Your task to perform on an android device: turn on improve location accuracy Image 0: 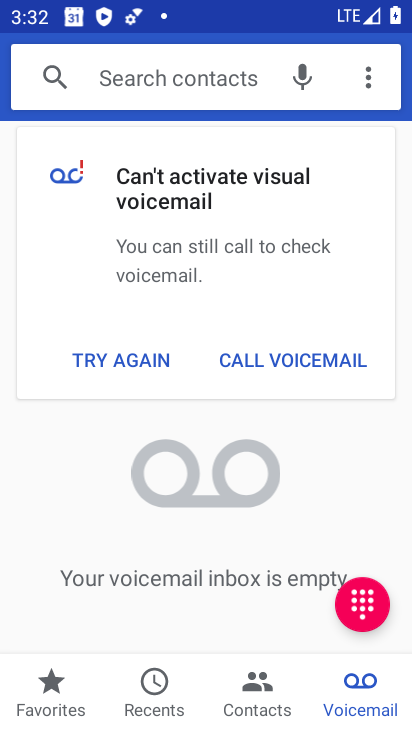
Step 0: press home button
Your task to perform on an android device: turn on improve location accuracy Image 1: 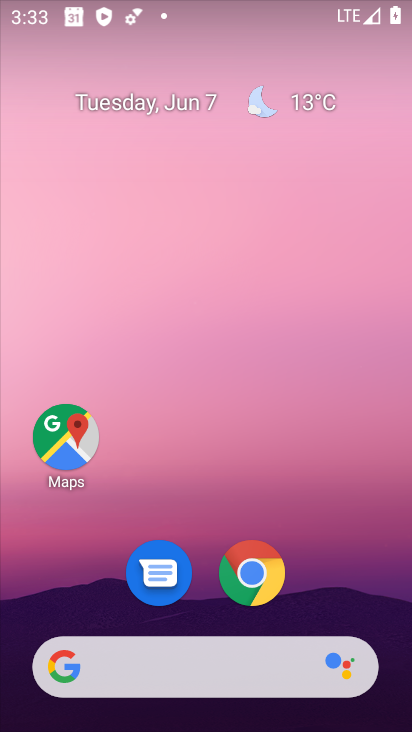
Step 1: drag from (385, 616) to (273, 132)
Your task to perform on an android device: turn on improve location accuracy Image 2: 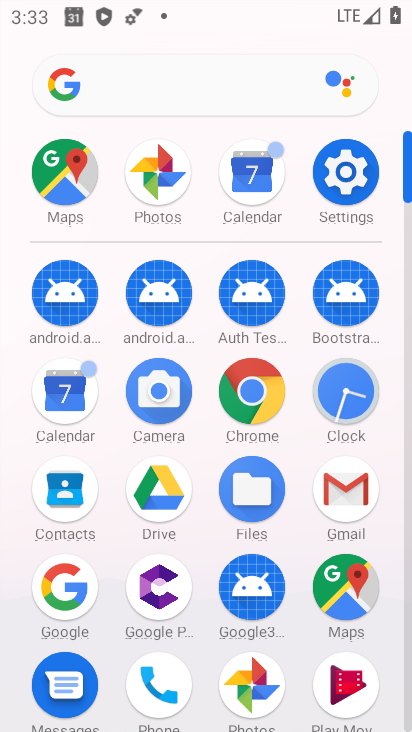
Step 2: click (357, 195)
Your task to perform on an android device: turn on improve location accuracy Image 3: 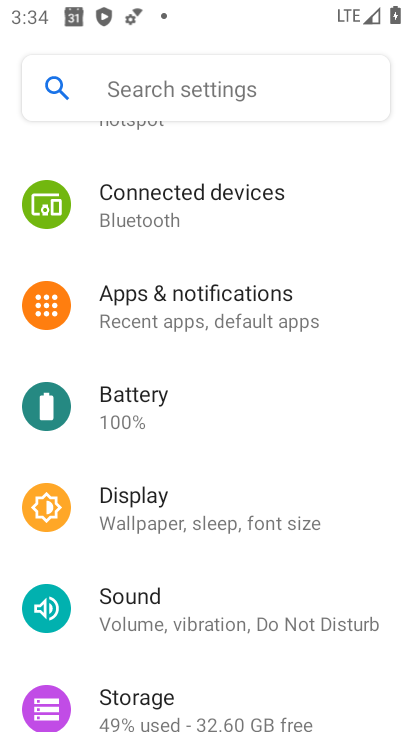
Step 3: drag from (284, 655) to (250, 247)
Your task to perform on an android device: turn on improve location accuracy Image 4: 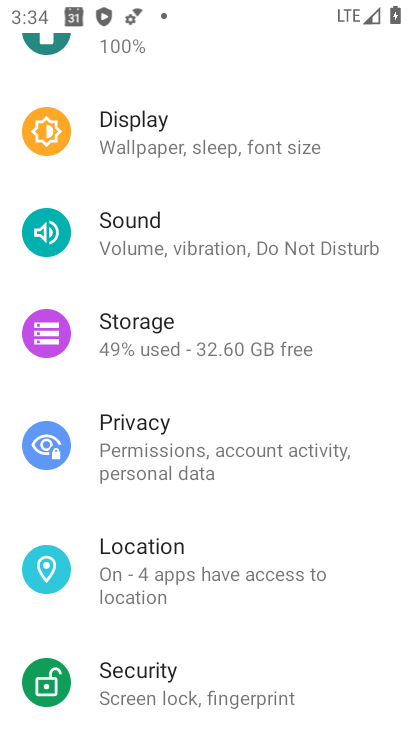
Step 4: click (262, 566)
Your task to perform on an android device: turn on improve location accuracy Image 5: 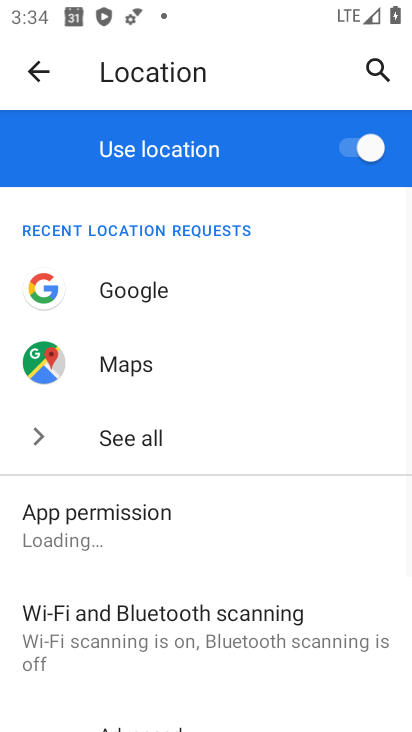
Step 5: drag from (308, 592) to (248, 299)
Your task to perform on an android device: turn on improve location accuracy Image 6: 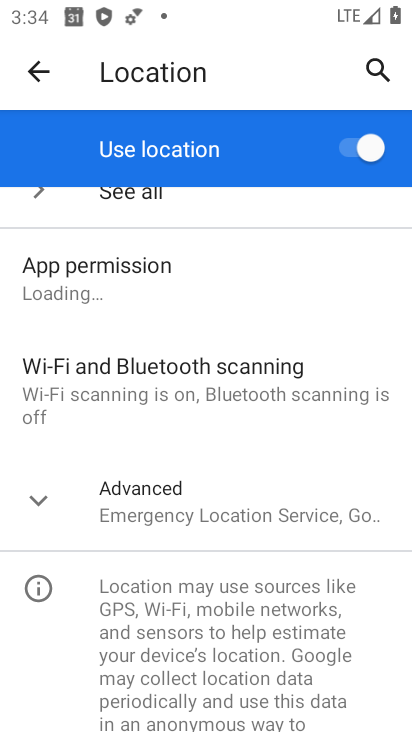
Step 6: click (264, 488)
Your task to perform on an android device: turn on improve location accuracy Image 7: 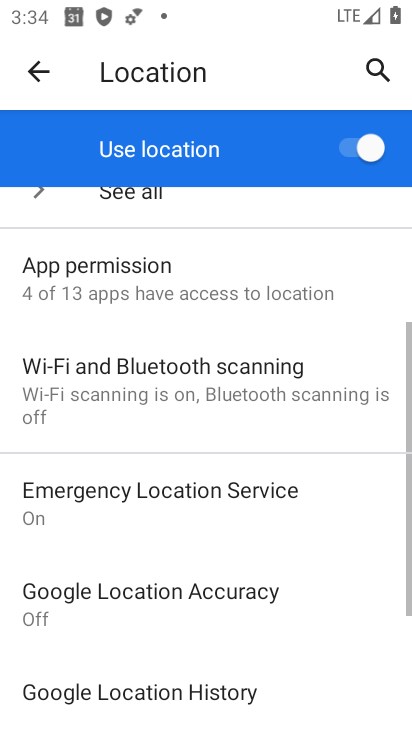
Step 7: drag from (264, 488) to (210, 252)
Your task to perform on an android device: turn on improve location accuracy Image 8: 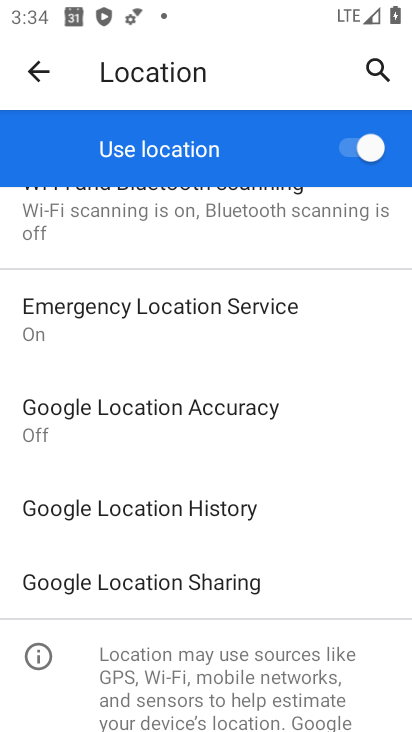
Step 8: click (234, 414)
Your task to perform on an android device: turn on improve location accuracy Image 9: 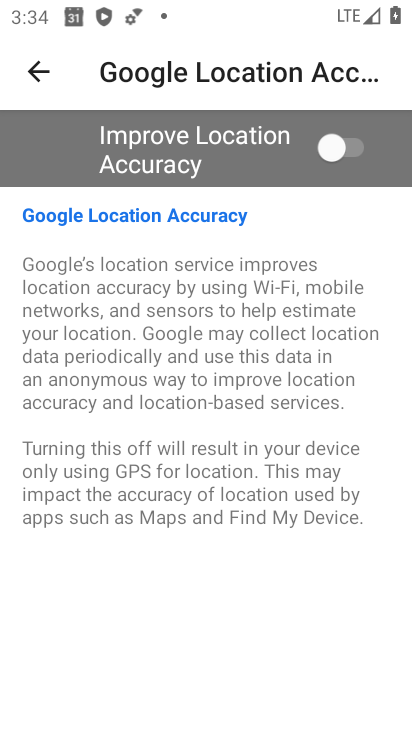
Step 9: click (351, 162)
Your task to perform on an android device: turn on improve location accuracy Image 10: 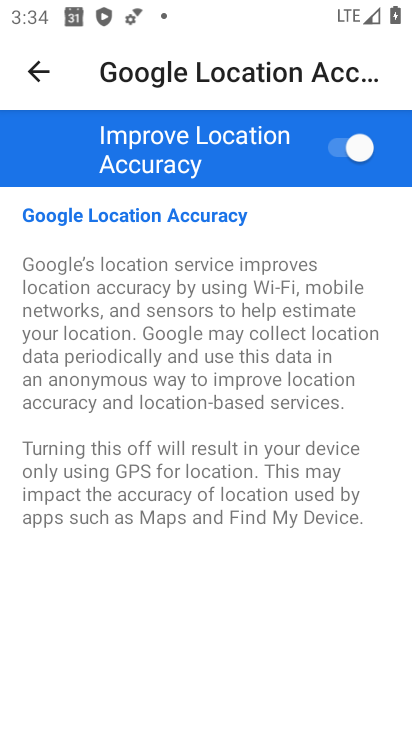
Step 10: task complete